Your task to perform on an android device: Toggle the flashlight Image 0: 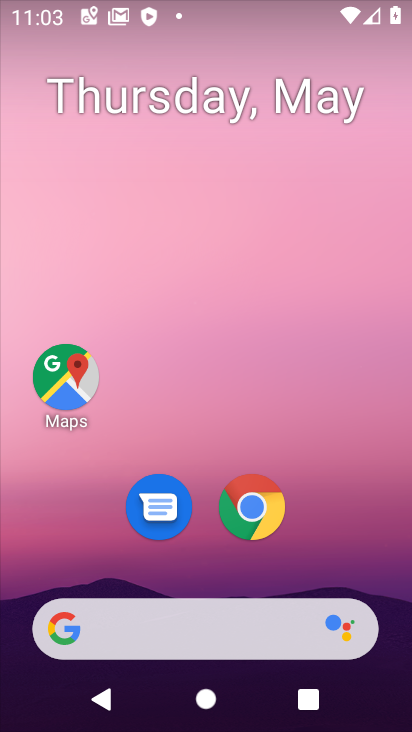
Step 0: click (200, 569)
Your task to perform on an android device: Toggle the flashlight Image 1: 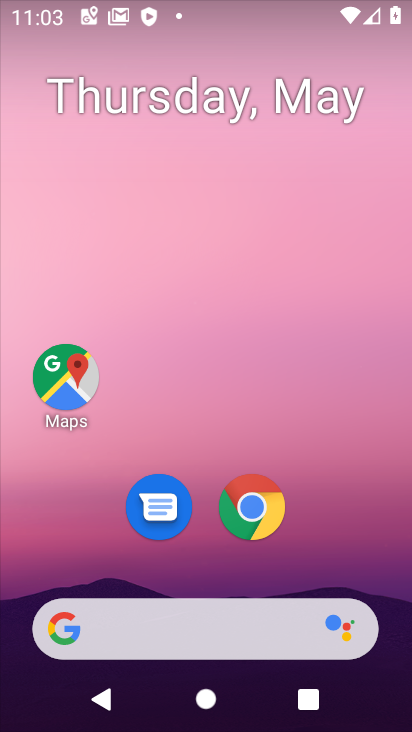
Step 1: task complete